Your task to perform on an android device: Open the phone app and click the voicemail tab. Image 0: 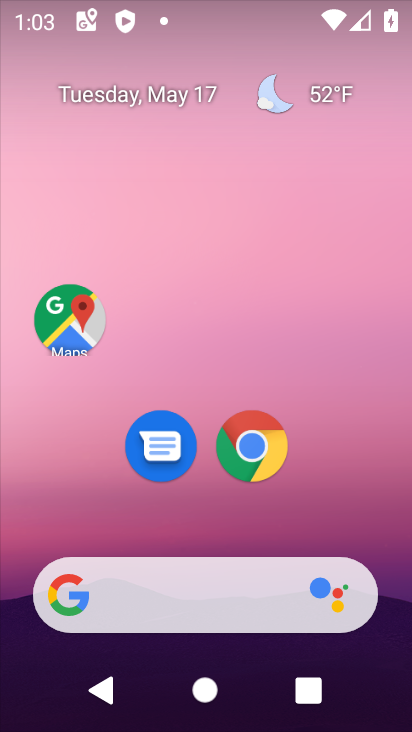
Step 0: drag from (241, 527) to (257, 200)
Your task to perform on an android device: Open the phone app and click the voicemail tab. Image 1: 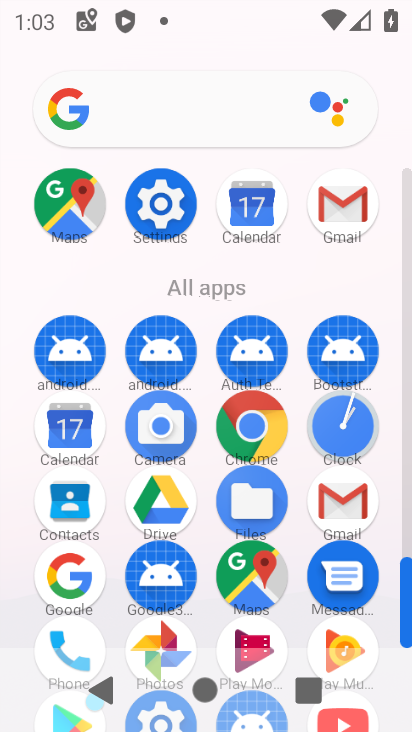
Step 1: drag from (302, 593) to (308, 312)
Your task to perform on an android device: Open the phone app and click the voicemail tab. Image 2: 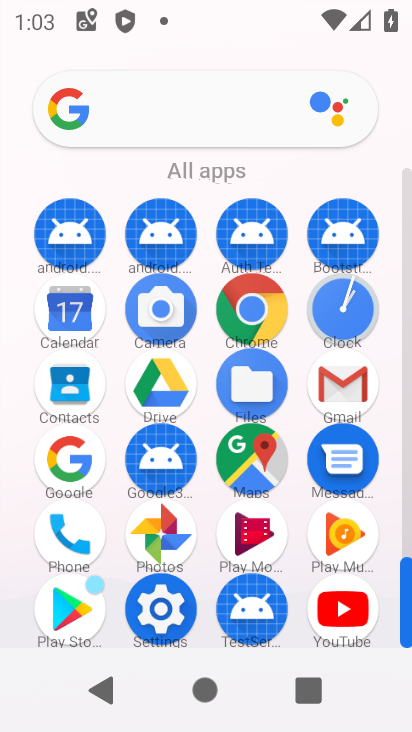
Step 2: click (69, 527)
Your task to perform on an android device: Open the phone app and click the voicemail tab. Image 3: 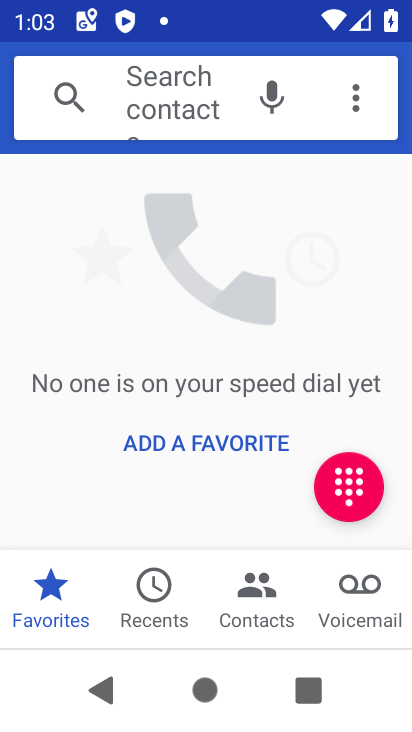
Step 3: click (340, 597)
Your task to perform on an android device: Open the phone app and click the voicemail tab. Image 4: 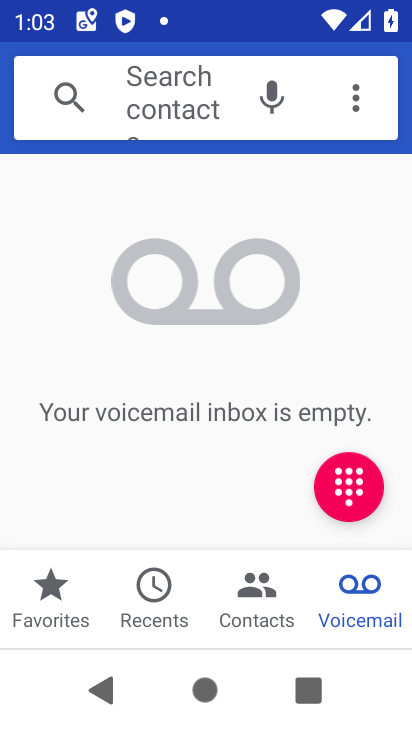
Step 4: task complete